Your task to perform on an android device: Search for hotels in Philadelphia Image 0: 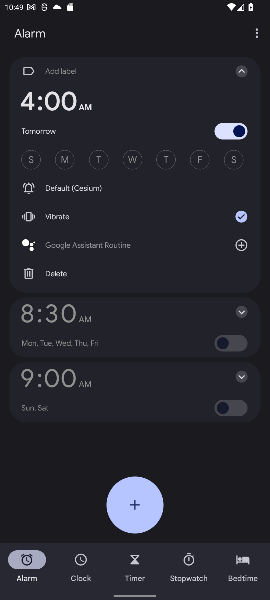
Step 0: press home button
Your task to perform on an android device: Search for hotels in Philadelphia Image 1: 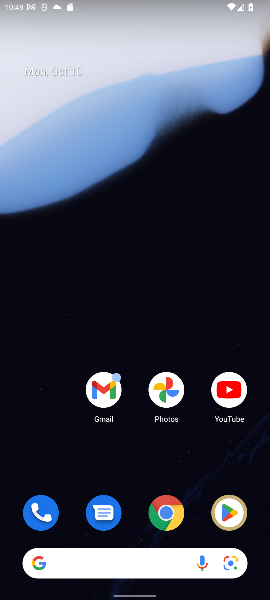
Step 1: drag from (132, 462) to (132, 17)
Your task to perform on an android device: Search for hotels in Philadelphia Image 2: 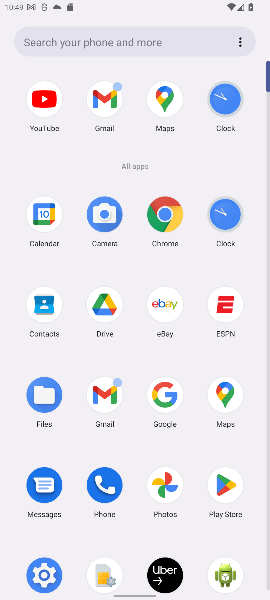
Step 2: click (165, 407)
Your task to perform on an android device: Search for hotels in Philadelphia Image 3: 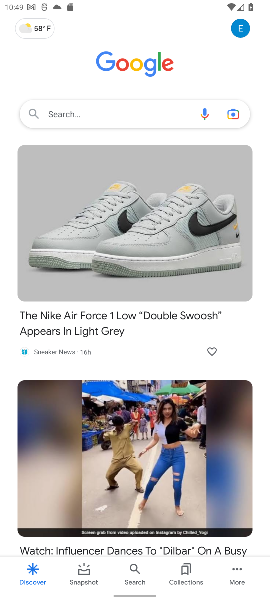
Step 3: click (88, 111)
Your task to perform on an android device: Search for hotels in Philadelphia Image 4: 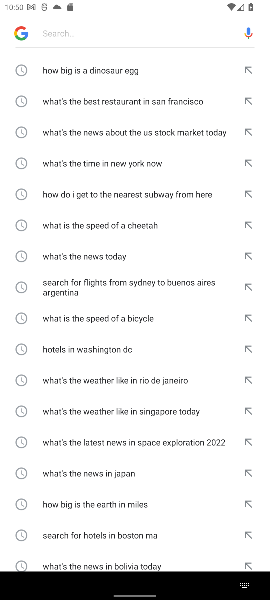
Step 4: type "hotels in Philadelphia"
Your task to perform on an android device: Search for hotels in Philadelphia Image 5: 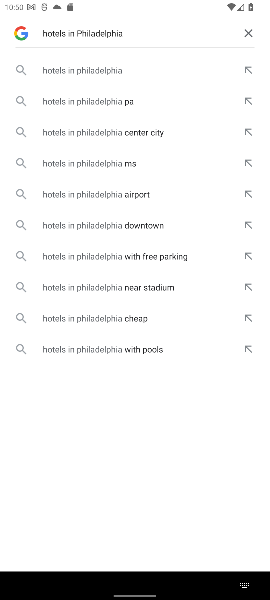
Step 5: click (111, 74)
Your task to perform on an android device: Search for hotels in Philadelphia Image 6: 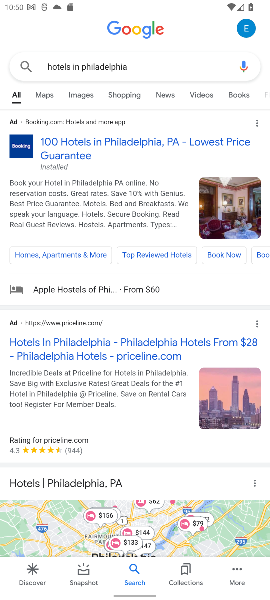
Step 6: task complete